Your task to perform on an android device: Check the settings for the Facebook app Image 0: 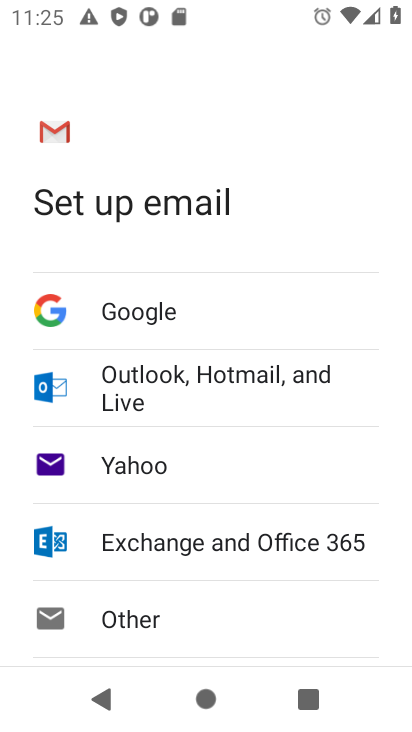
Step 0: press home button
Your task to perform on an android device: Check the settings for the Facebook app Image 1: 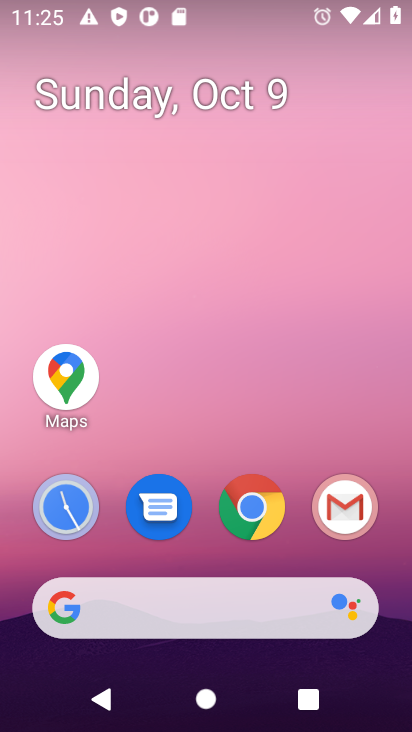
Step 1: click (390, 437)
Your task to perform on an android device: Check the settings for the Facebook app Image 2: 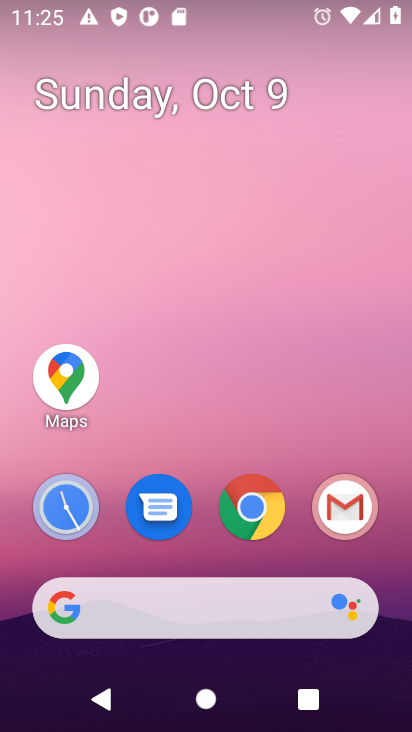
Step 2: press home button
Your task to perform on an android device: Check the settings for the Facebook app Image 3: 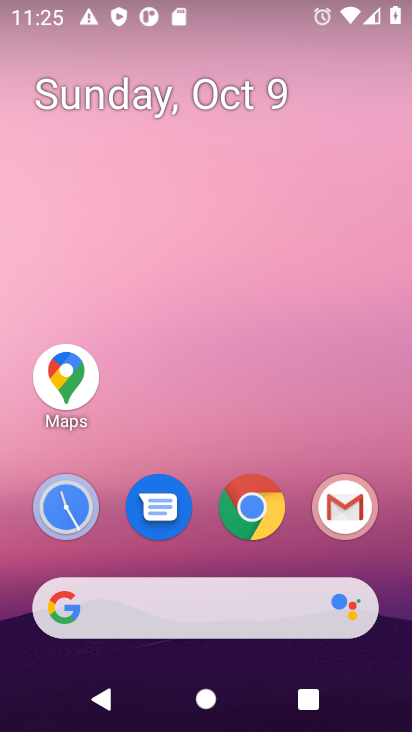
Step 3: click (281, 14)
Your task to perform on an android device: Check the settings for the Facebook app Image 4: 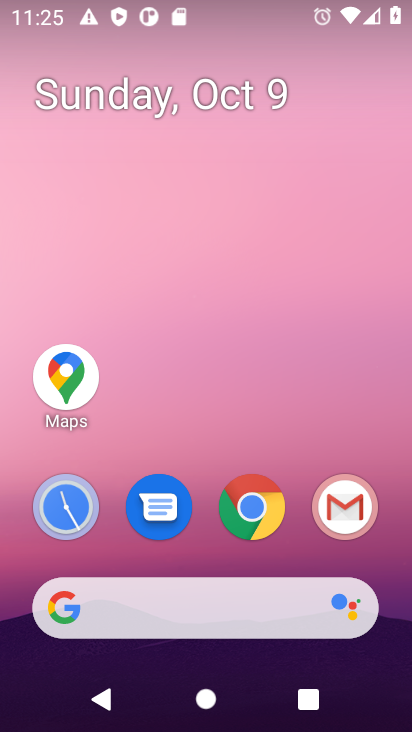
Step 4: drag from (293, 553) to (305, 41)
Your task to perform on an android device: Check the settings for the Facebook app Image 5: 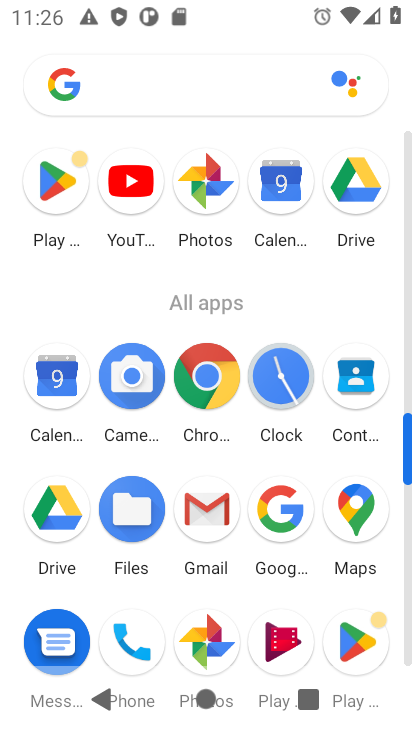
Step 5: click (367, 642)
Your task to perform on an android device: Check the settings for the Facebook app Image 6: 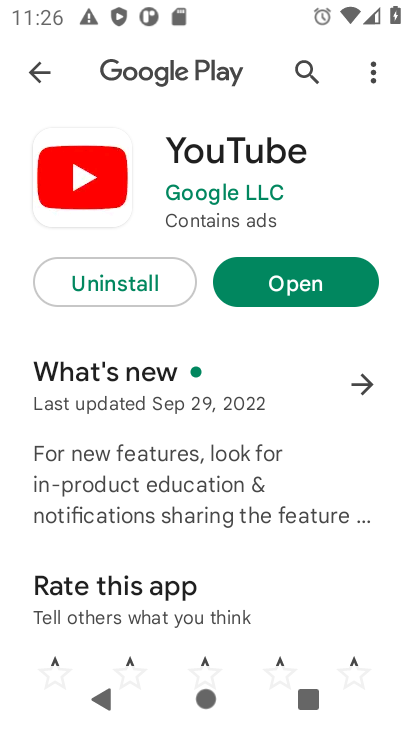
Step 6: click (305, 79)
Your task to perform on an android device: Check the settings for the Facebook app Image 7: 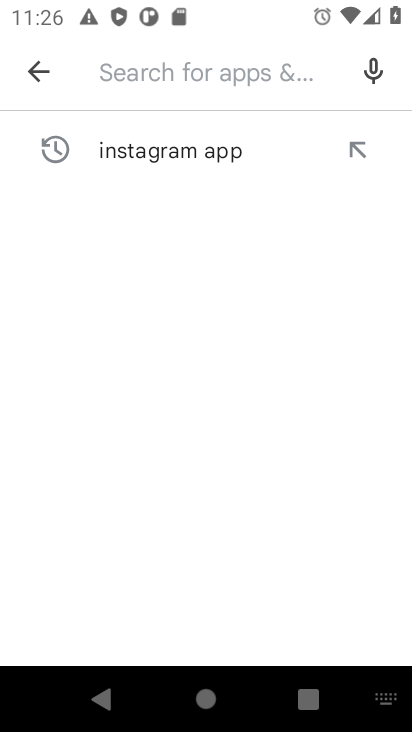
Step 7: type "facebook app"
Your task to perform on an android device: Check the settings for the Facebook app Image 8: 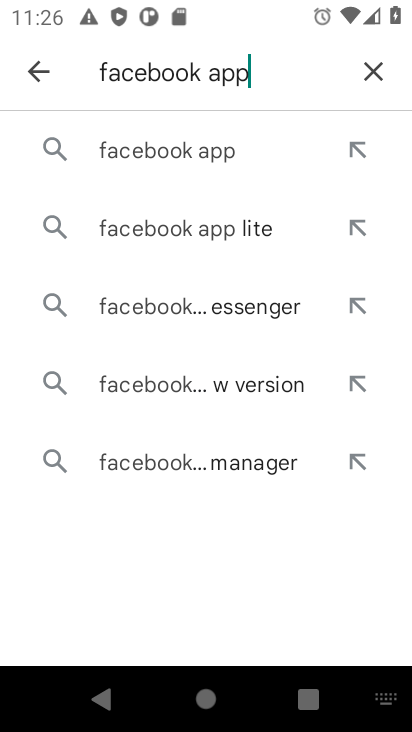
Step 8: press enter
Your task to perform on an android device: Check the settings for the Facebook app Image 9: 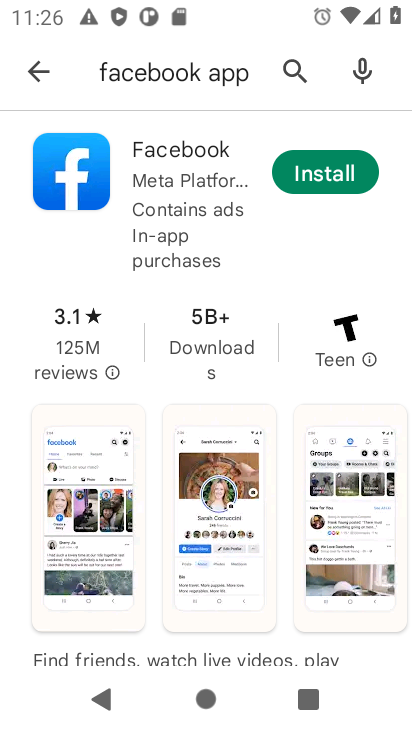
Step 9: task complete